Your task to perform on an android device: change text size in settings app Image 0: 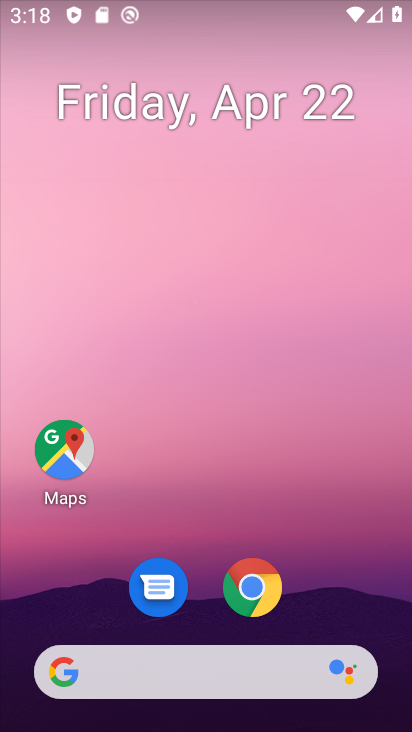
Step 0: drag from (313, 555) to (339, 133)
Your task to perform on an android device: change text size in settings app Image 1: 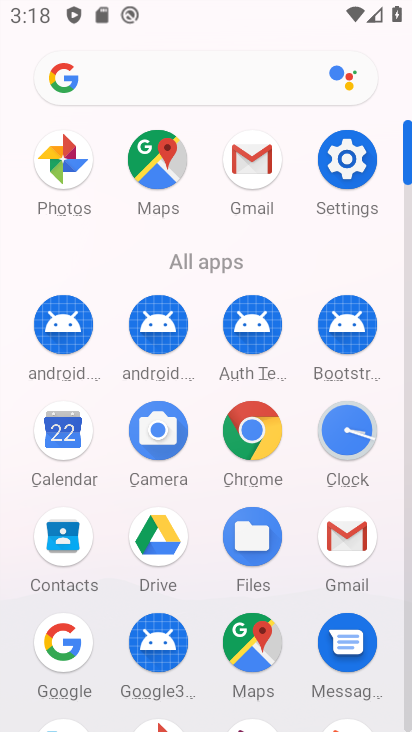
Step 1: click (349, 157)
Your task to perform on an android device: change text size in settings app Image 2: 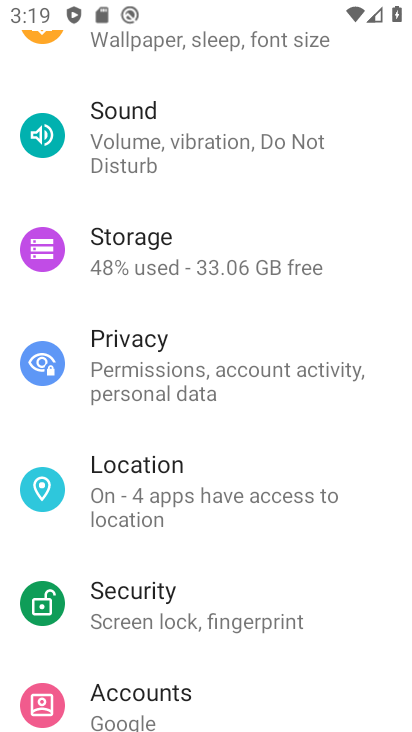
Step 2: drag from (241, 439) to (277, 282)
Your task to perform on an android device: change text size in settings app Image 3: 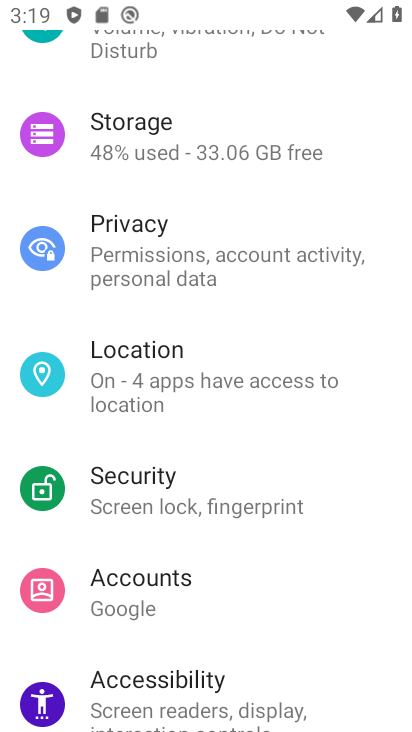
Step 3: drag from (216, 414) to (242, 315)
Your task to perform on an android device: change text size in settings app Image 4: 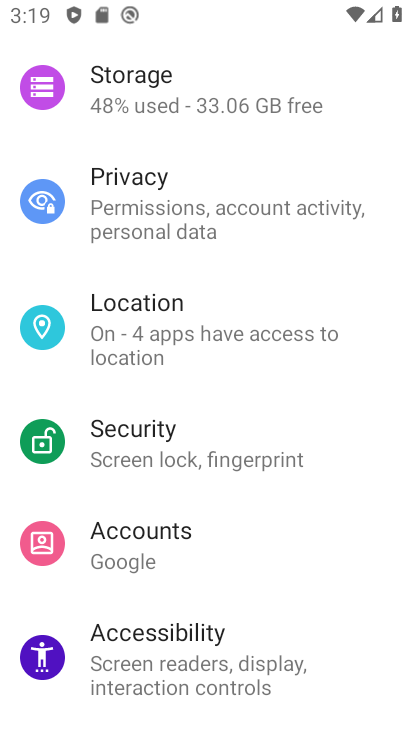
Step 4: drag from (198, 398) to (218, 264)
Your task to perform on an android device: change text size in settings app Image 5: 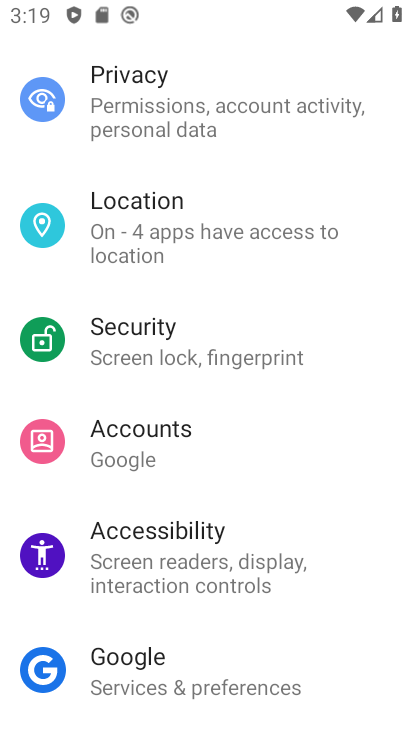
Step 5: drag from (216, 399) to (238, 264)
Your task to perform on an android device: change text size in settings app Image 6: 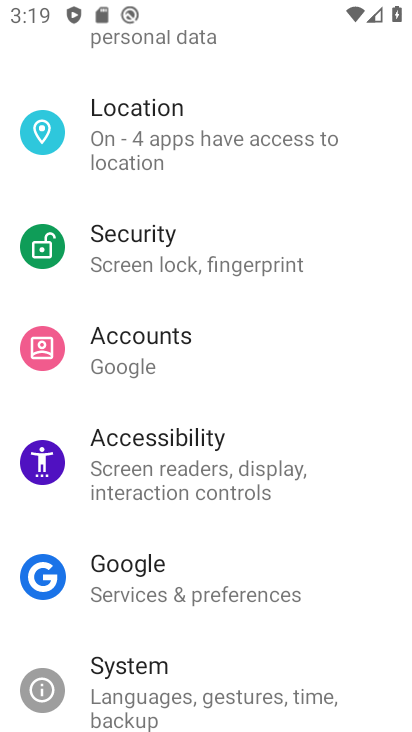
Step 6: drag from (226, 394) to (257, 238)
Your task to perform on an android device: change text size in settings app Image 7: 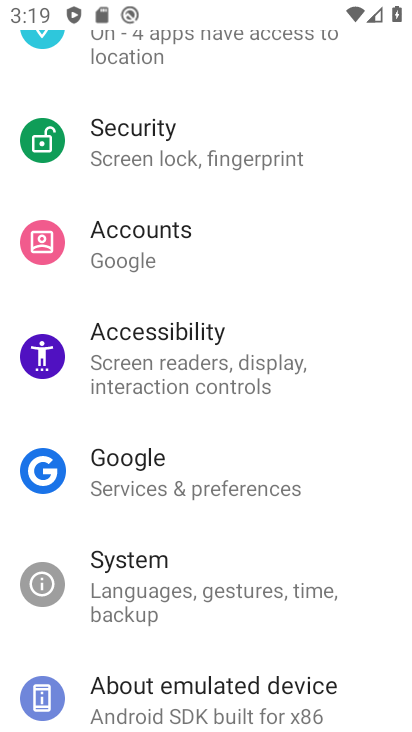
Step 7: click (199, 338)
Your task to perform on an android device: change text size in settings app Image 8: 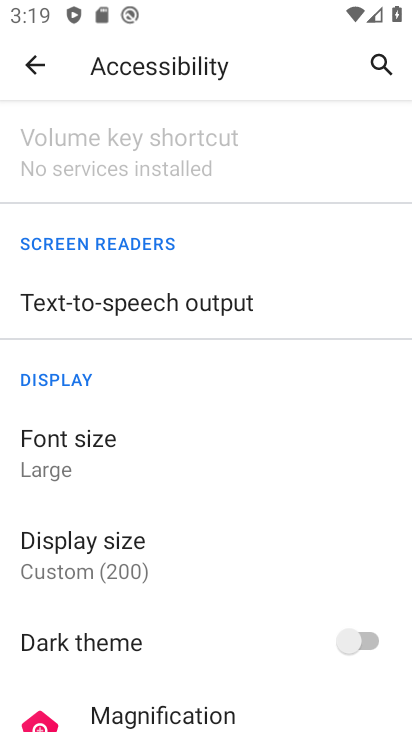
Step 8: drag from (115, 486) to (137, 330)
Your task to perform on an android device: change text size in settings app Image 9: 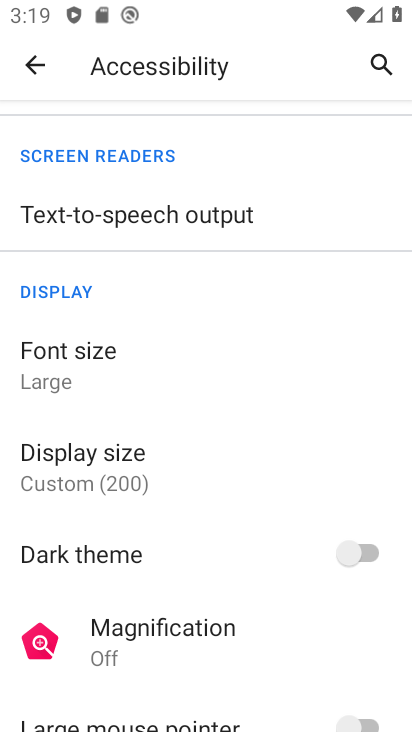
Step 9: click (119, 349)
Your task to perform on an android device: change text size in settings app Image 10: 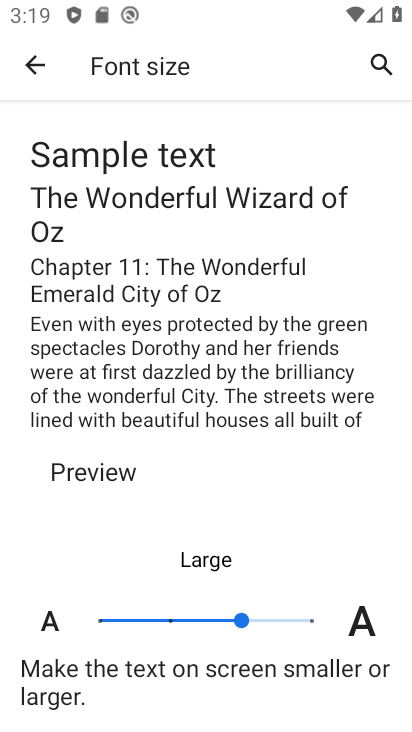
Step 10: click (165, 622)
Your task to perform on an android device: change text size in settings app Image 11: 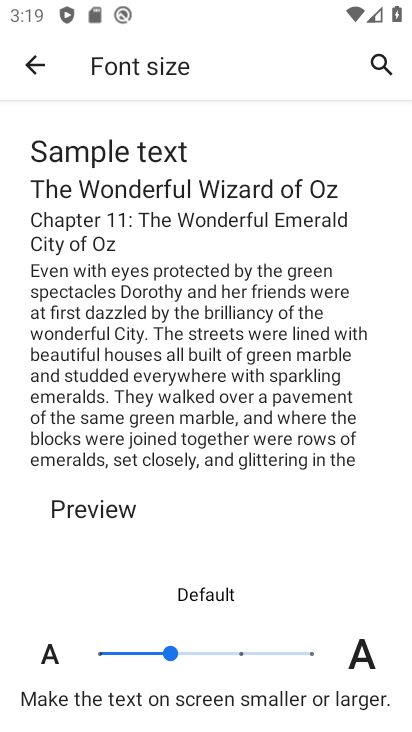
Step 11: task complete